Your task to perform on an android device: What's the weather going to be this weekend? Image 0: 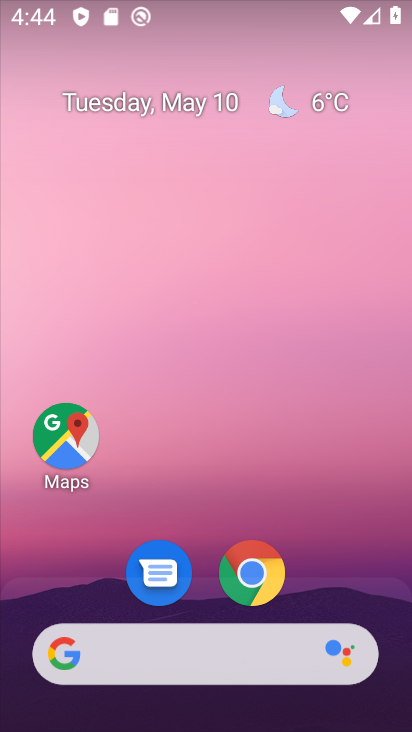
Step 0: click (285, 97)
Your task to perform on an android device: What's the weather going to be this weekend? Image 1: 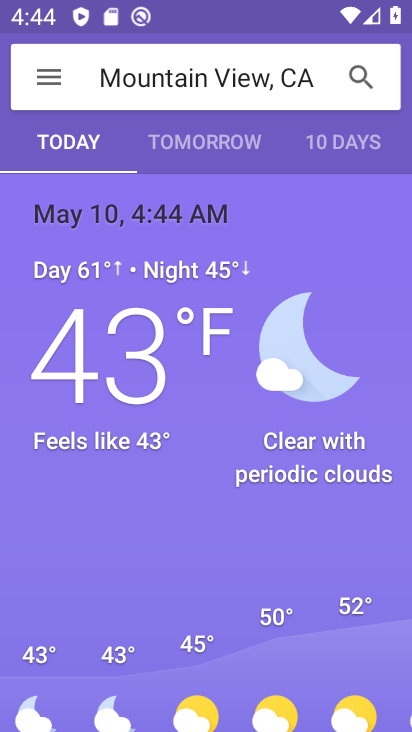
Step 1: click (325, 148)
Your task to perform on an android device: What's the weather going to be this weekend? Image 2: 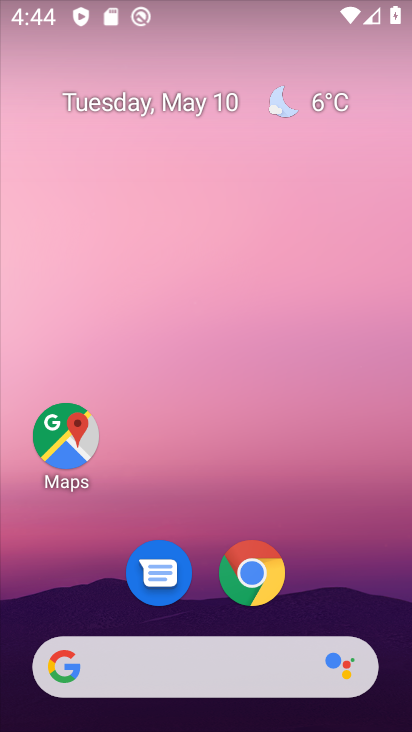
Step 2: click (329, 106)
Your task to perform on an android device: What's the weather going to be this weekend? Image 3: 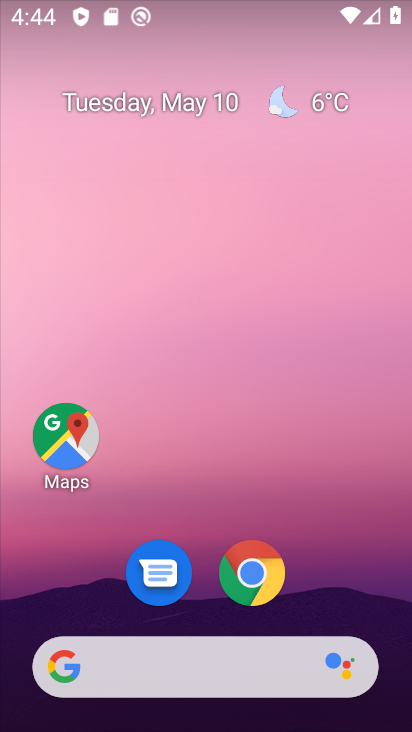
Step 3: click (294, 107)
Your task to perform on an android device: What's the weather going to be this weekend? Image 4: 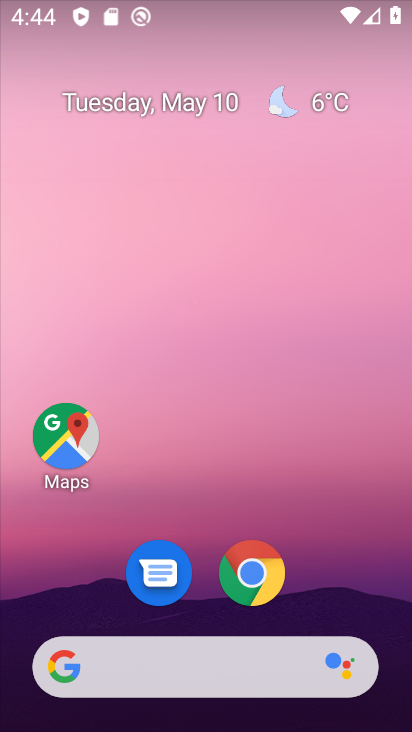
Step 4: click (288, 103)
Your task to perform on an android device: What's the weather going to be this weekend? Image 5: 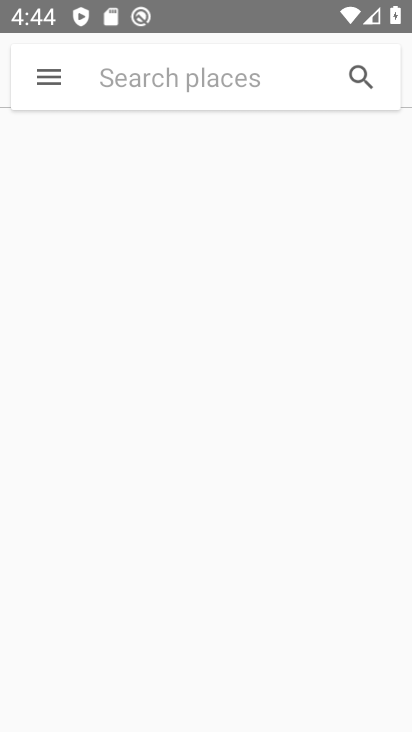
Step 5: drag from (312, 649) to (410, 203)
Your task to perform on an android device: What's the weather going to be this weekend? Image 6: 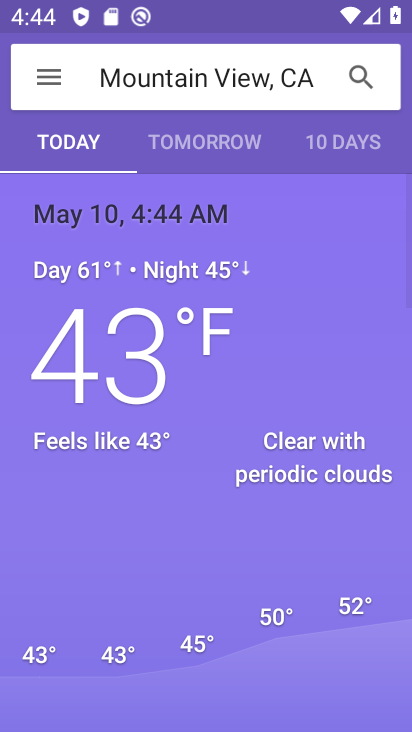
Step 6: click (348, 145)
Your task to perform on an android device: What's the weather going to be this weekend? Image 7: 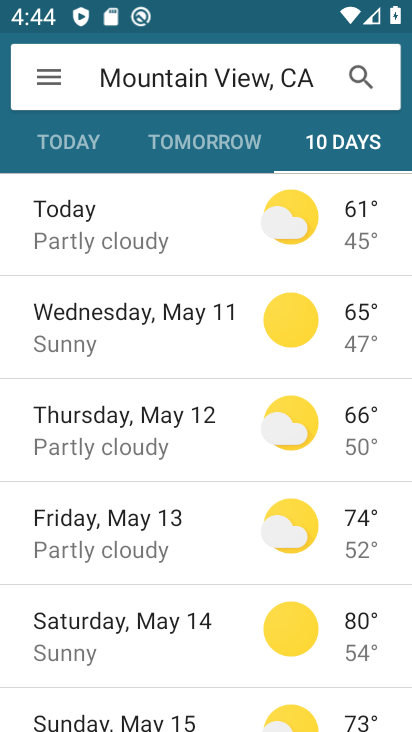
Step 7: task complete